Your task to perform on an android device: change the clock display to digital Image 0: 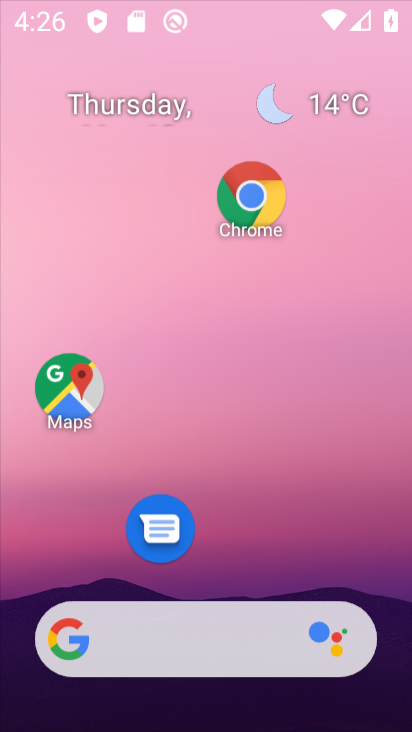
Step 0: click (243, 40)
Your task to perform on an android device: change the clock display to digital Image 1: 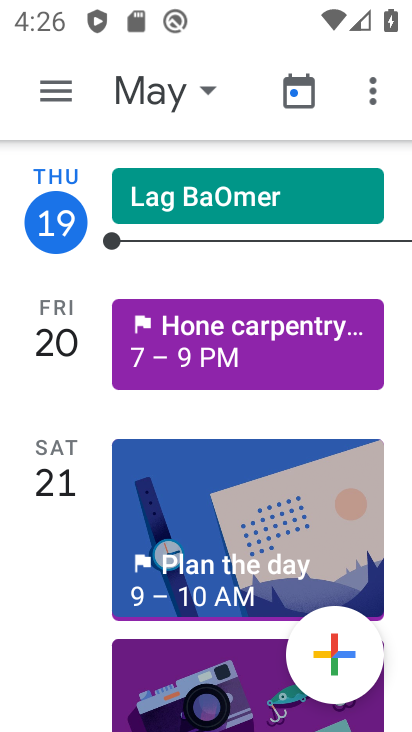
Step 1: press home button
Your task to perform on an android device: change the clock display to digital Image 2: 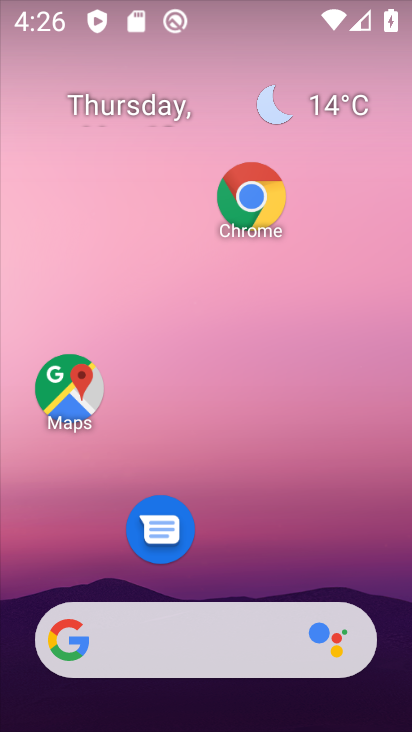
Step 2: drag from (224, 567) to (226, 65)
Your task to perform on an android device: change the clock display to digital Image 3: 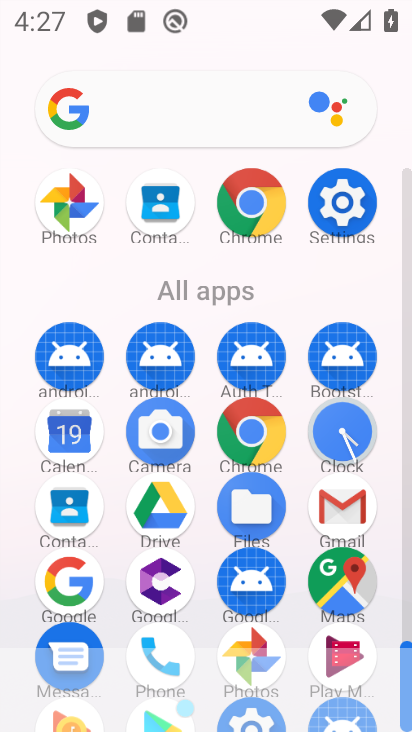
Step 3: click (341, 421)
Your task to perform on an android device: change the clock display to digital Image 4: 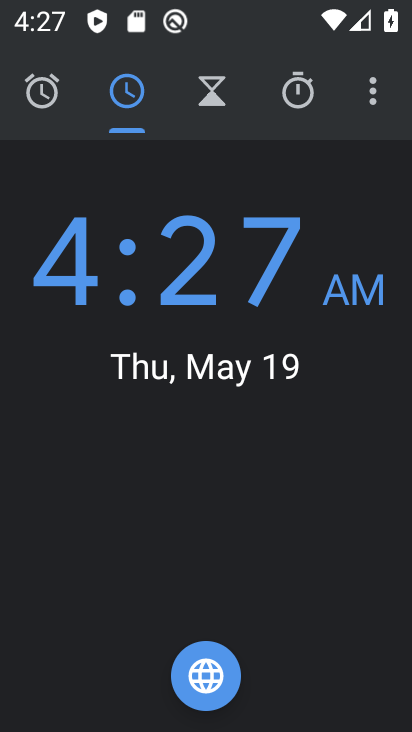
Step 4: click (369, 89)
Your task to perform on an android device: change the clock display to digital Image 5: 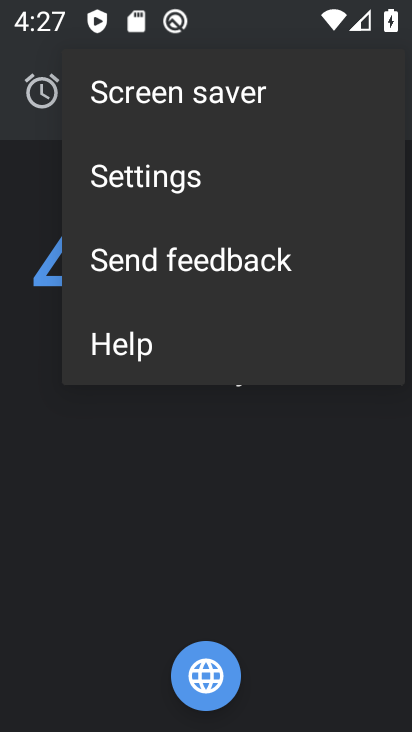
Step 5: click (187, 179)
Your task to perform on an android device: change the clock display to digital Image 6: 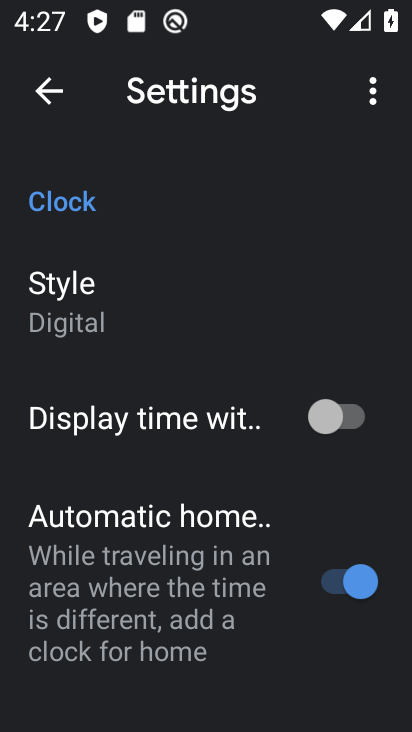
Step 6: click (145, 305)
Your task to perform on an android device: change the clock display to digital Image 7: 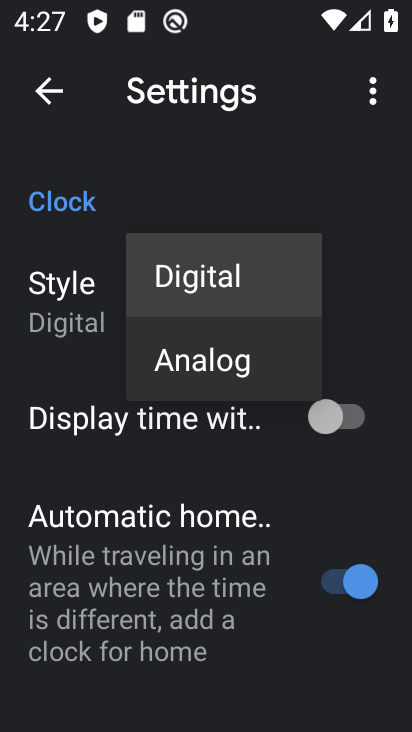
Step 7: click (200, 291)
Your task to perform on an android device: change the clock display to digital Image 8: 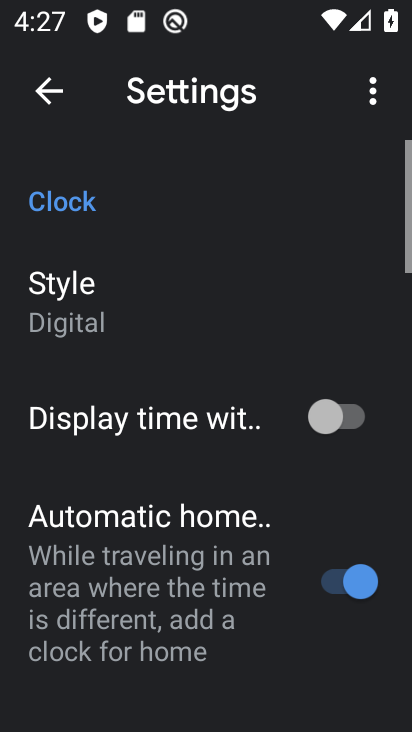
Step 8: task complete